Your task to perform on an android device: Open accessibility settings Image 0: 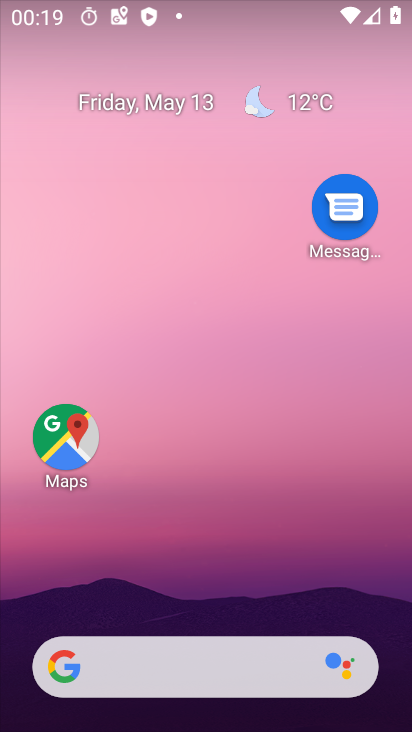
Step 0: press home button
Your task to perform on an android device: Open accessibility settings Image 1: 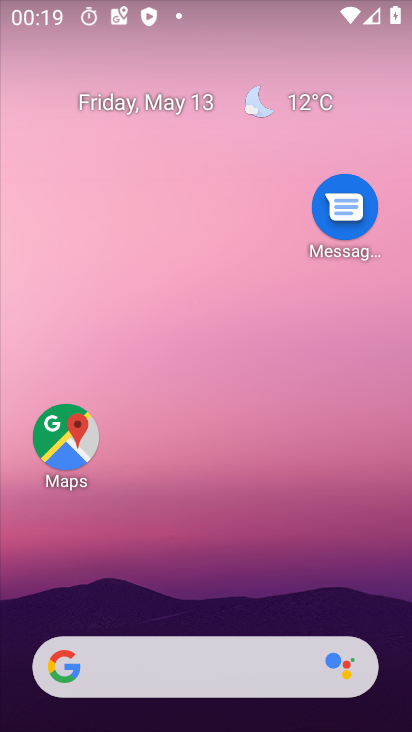
Step 1: drag from (246, 565) to (264, 0)
Your task to perform on an android device: Open accessibility settings Image 2: 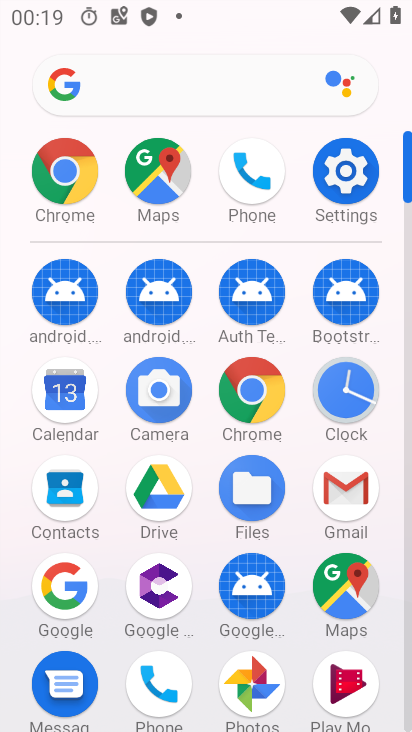
Step 2: drag from (372, 157) to (404, 300)
Your task to perform on an android device: Open accessibility settings Image 3: 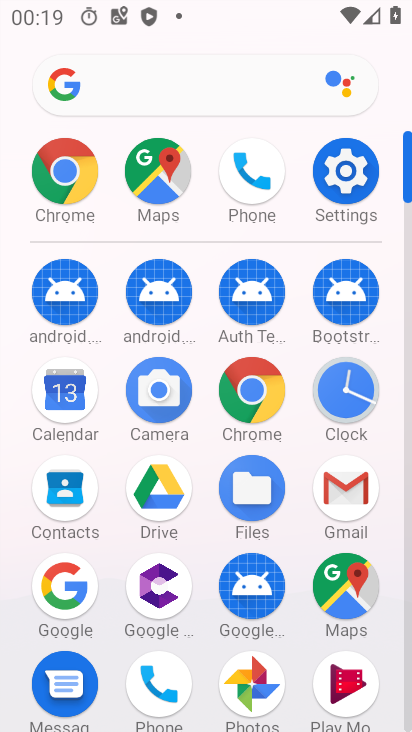
Step 3: click (330, 178)
Your task to perform on an android device: Open accessibility settings Image 4: 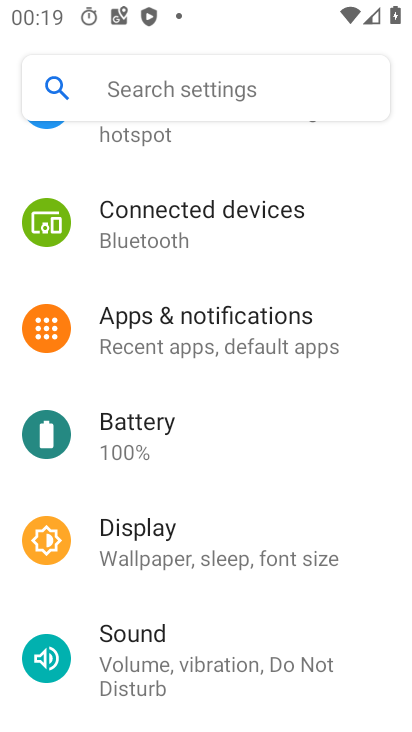
Step 4: drag from (187, 628) to (240, 3)
Your task to perform on an android device: Open accessibility settings Image 5: 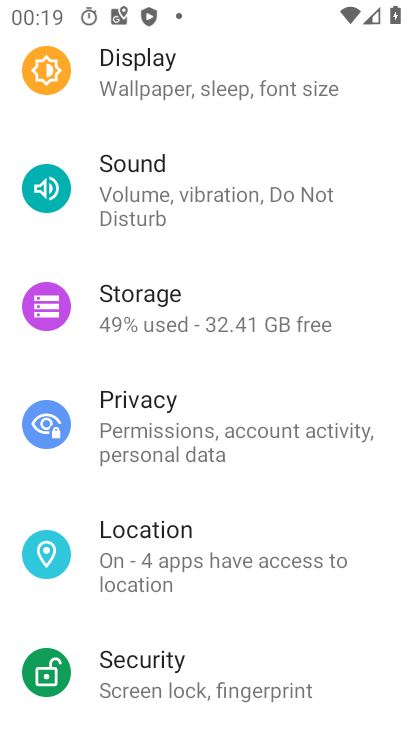
Step 5: drag from (207, 589) to (247, 77)
Your task to perform on an android device: Open accessibility settings Image 6: 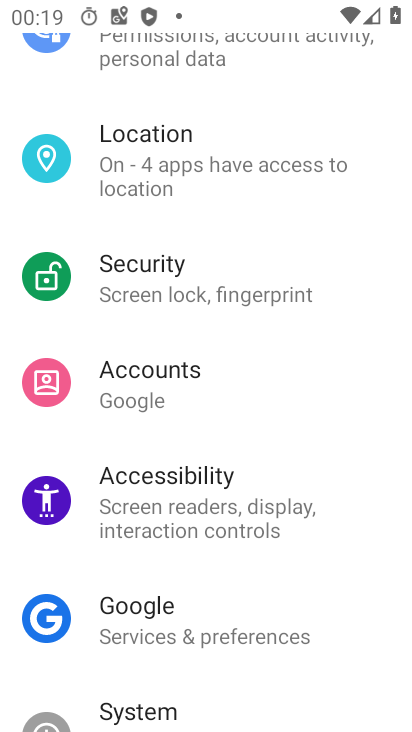
Step 6: drag from (261, 477) to (261, 146)
Your task to perform on an android device: Open accessibility settings Image 7: 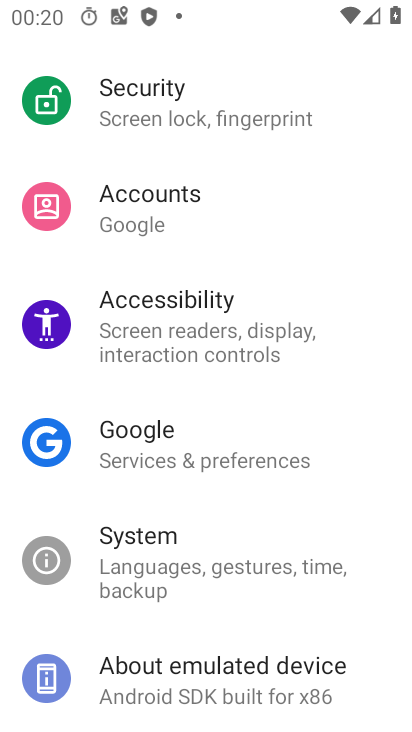
Step 7: click (234, 483)
Your task to perform on an android device: Open accessibility settings Image 8: 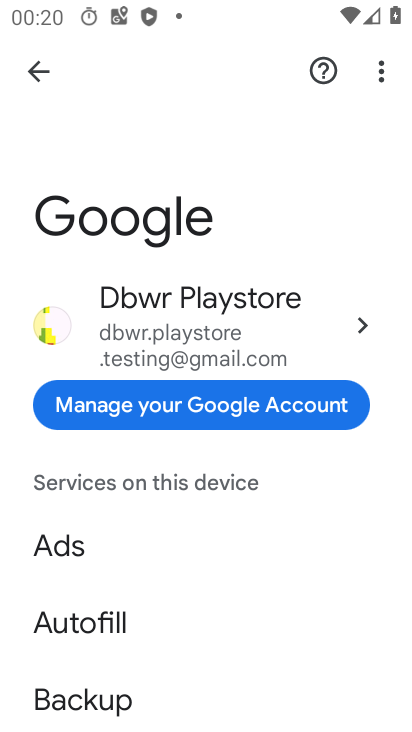
Step 8: click (30, 75)
Your task to perform on an android device: Open accessibility settings Image 9: 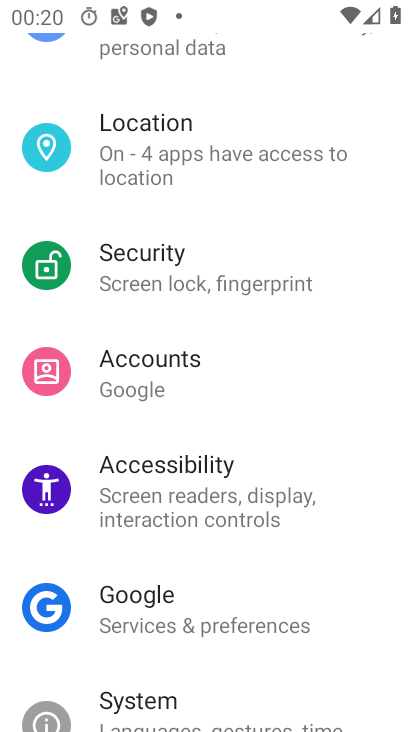
Step 9: click (169, 469)
Your task to perform on an android device: Open accessibility settings Image 10: 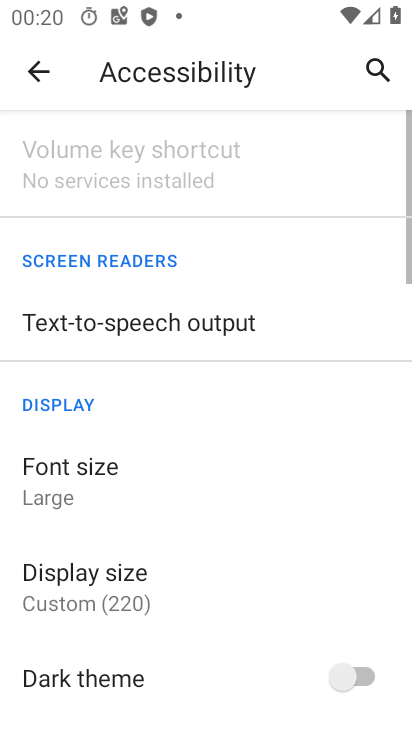
Step 10: task complete